Your task to perform on an android device: Open Google Maps Image 0: 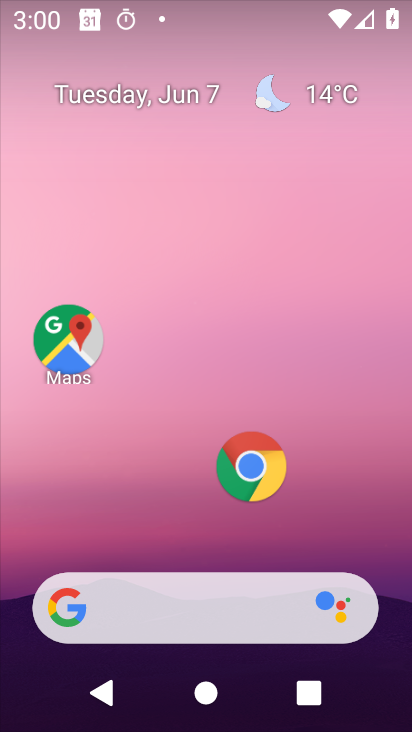
Step 0: click (71, 363)
Your task to perform on an android device: Open Google Maps Image 1: 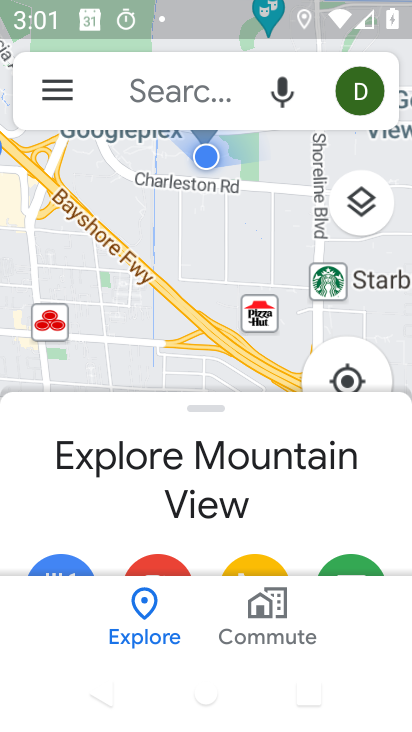
Step 1: task complete